Your task to perform on an android device: open chrome and create a bookmark for the current page Image 0: 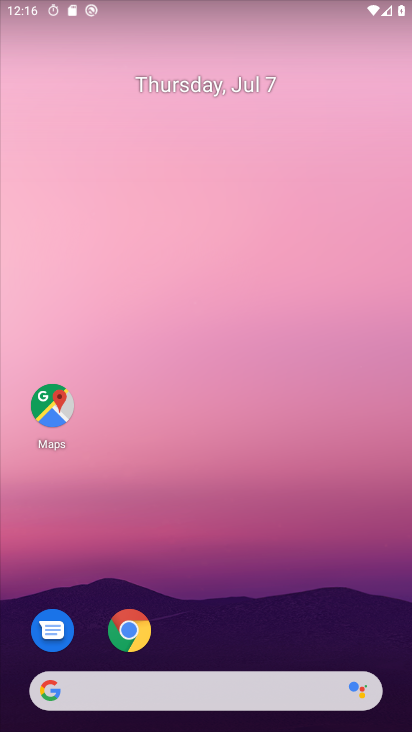
Step 0: click (127, 631)
Your task to perform on an android device: open chrome and create a bookmark for the current page Image 1: 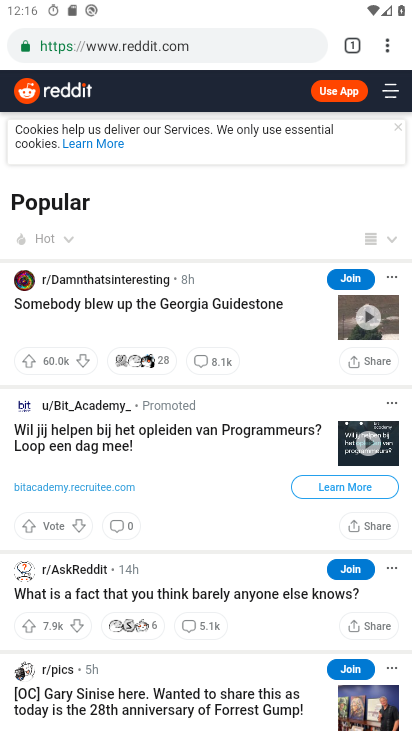
Step 1: click (388, 43)
Your task to perform on an android device: open chrome and create a bookmark for the current page Image 2: 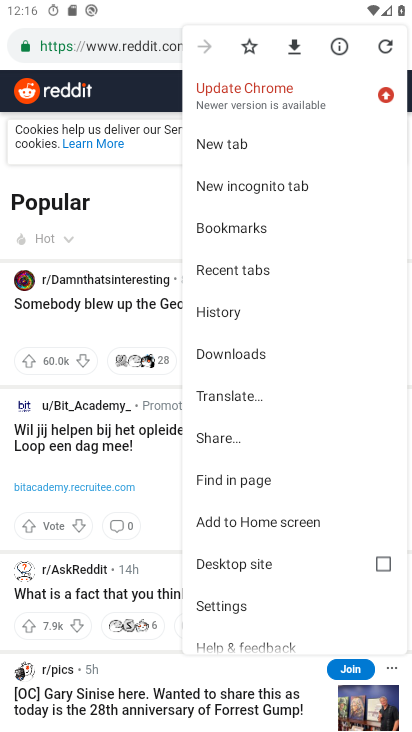
Step 2: click (245, 45)
Your task to perform on an android device: open chrome and create a bookmark for the current page Image 3: 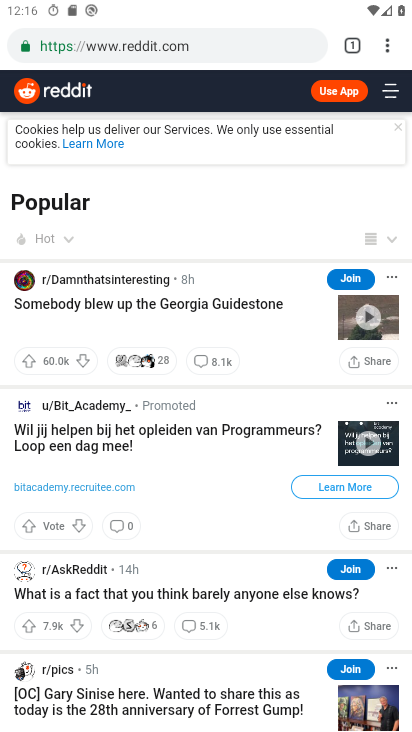
Step 3: task complete